Your task to perform on an android device: Search for Mexican restaurants on Maps Image 0: 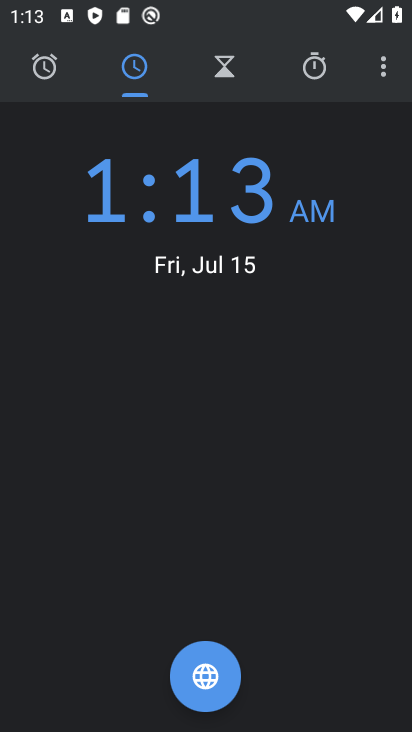
Step 0: press home button
Your task to perform on an android device: Search for Mexican restaurants on Maps Image 1: 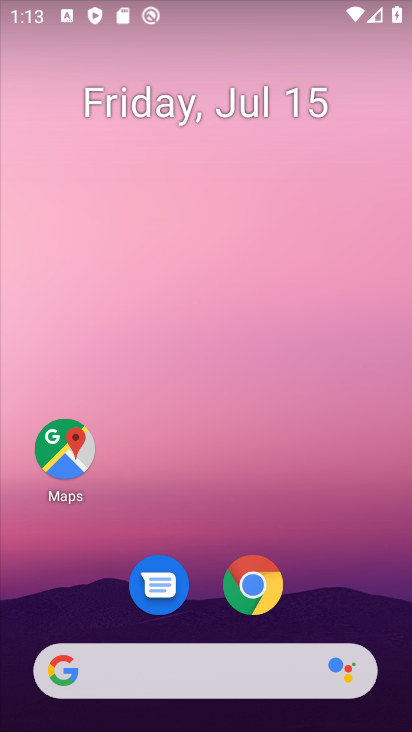
Step 1: click (69, 447)
Your task to perform on an android device: Search for Mexican restaurants on Maps Image 2: 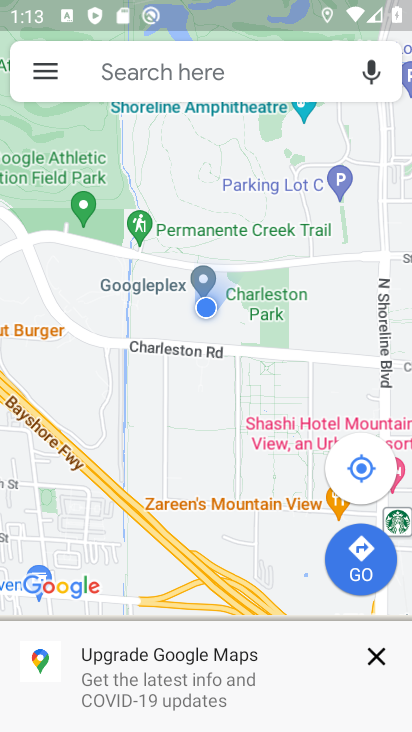
Step 2: click (159, 79)
Your task to perform on an android device: Search for Mexican restaurants on Maps Image 3: 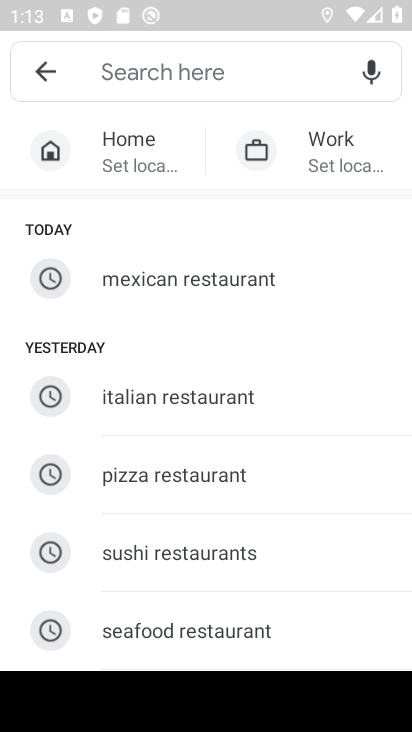
Step 3: click (196, 275)
Your task to perform on an android device: Search for Mexican restaurants on Maps Image 4: 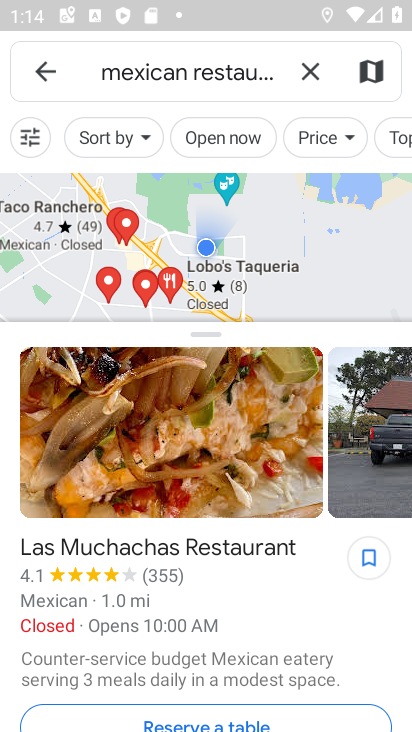
Step 4: task complete